Your task to perform on an android device: uninstall "TextNow: Call + Text Unlimited" Image 0: 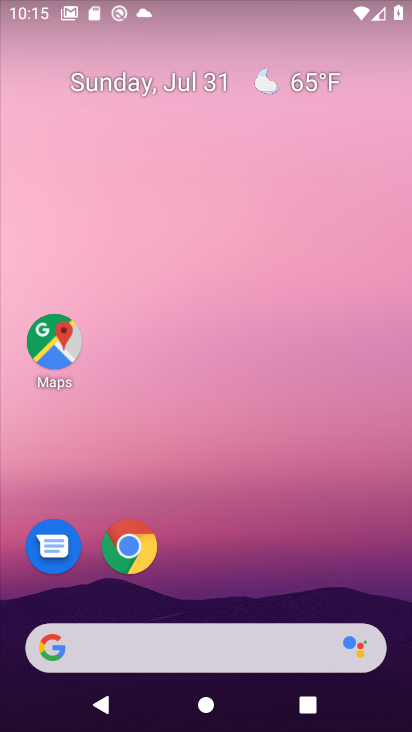
Step 0: drag from (273, 556) to (264, 0)
Your task to perform on an android device: uninstall "TextNow: Call + Text Unlimited" Image 1: 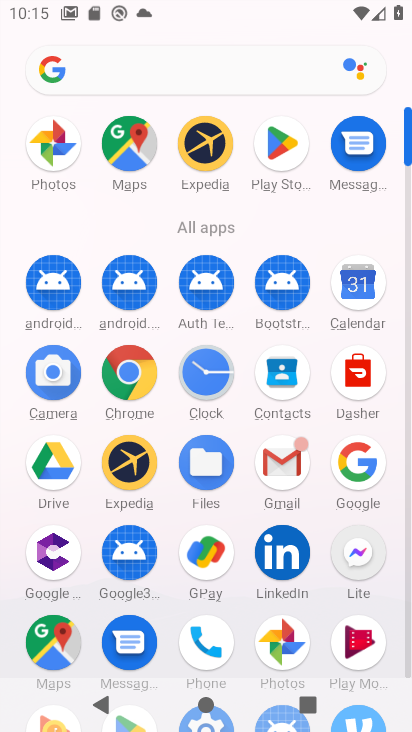
Step 1: click (277, 130)
Your task to perform on an android device: uninstall "TextNow: Call + Text Unlimited" Image 2: 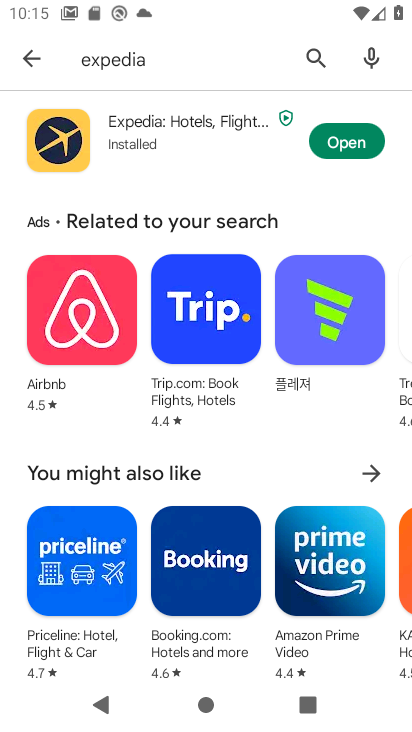
Step 2: click (310, 58)
Your task to perform on an android device: uninstall "TextNow: Call + Text Unlimited" Image 3: 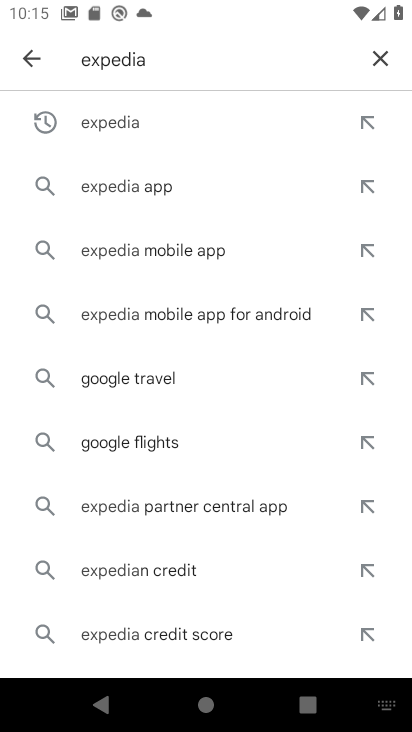
Step 3: click (382, 54)
Your task to perform on an android device: uninstall "TextNow: Call + Text Unlimited" Image 4: 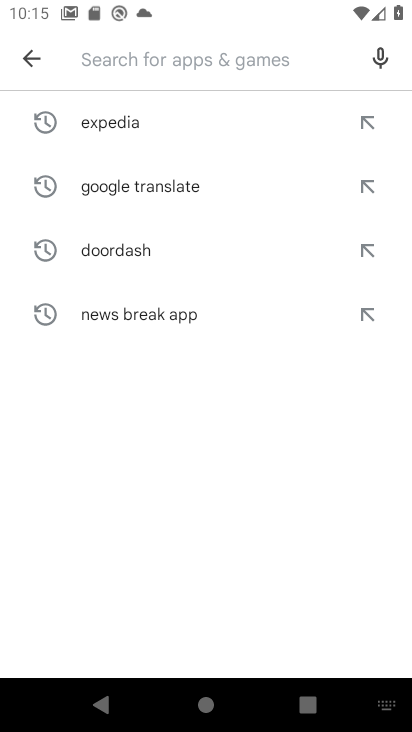
Step 4: click (152, 65)
Your task to perform on an android device: uninstall "TextNow: Call + Text Unlimited" Image 5: 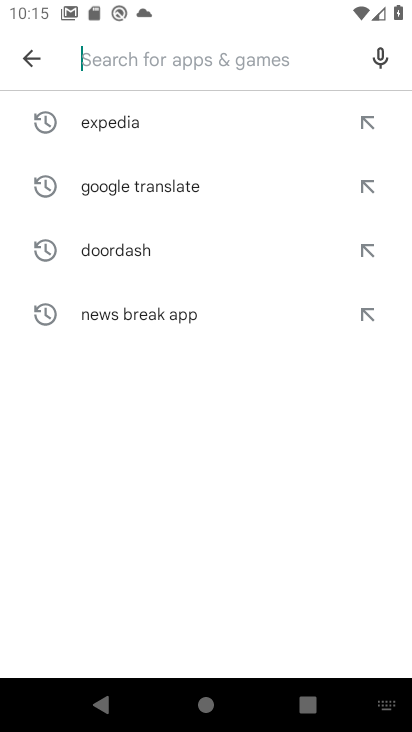
Step 5: type "text now"
Your task to perform on an android device: uninstall "TextNow: Call + Text Unlimited" Image 6: 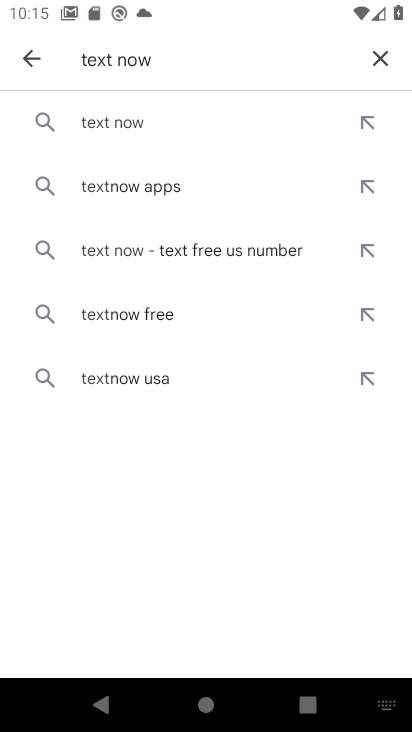
Step 6: type "w"
Your task to perform on an android device: uninstall "TextNow: Call + Text Unlimited" Image 7: 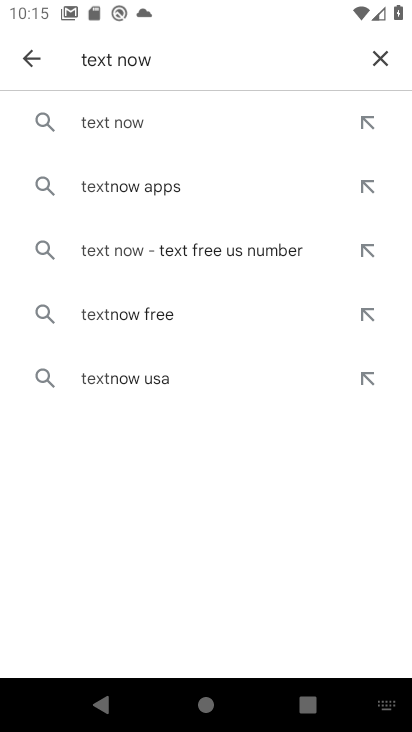
Step 7: click (147, 123)
Your task to perform on an android device: uninstall "TextNow: Call + Text Unlimited" Image 8: 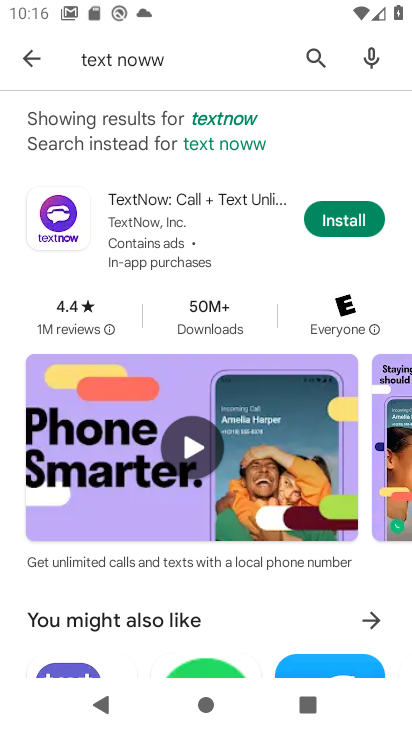
Step 8: task complete